Your task to perform on an android device: turn off airplane mode Image 0: 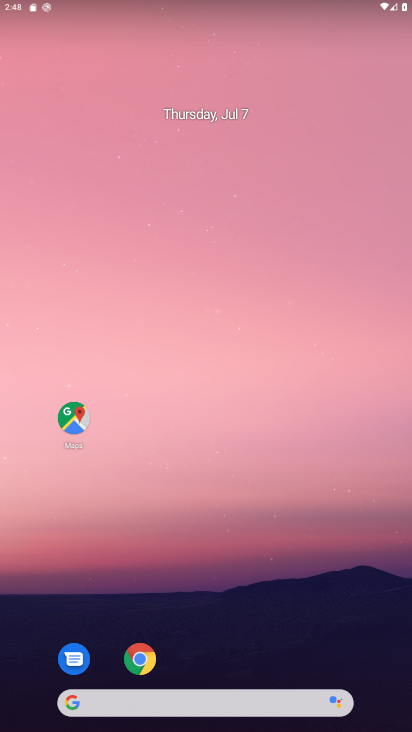
Step 0: drag from (206, 610) to (286, 62)
Your task to perform on an android device: turn off airplane mode Image 1: 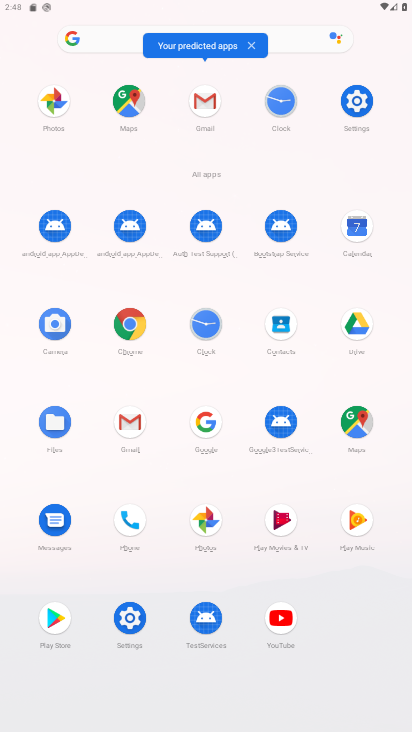
Step 1: click (115, 615)
Your task to perform on an android device: turn off airplane mode Image 2: 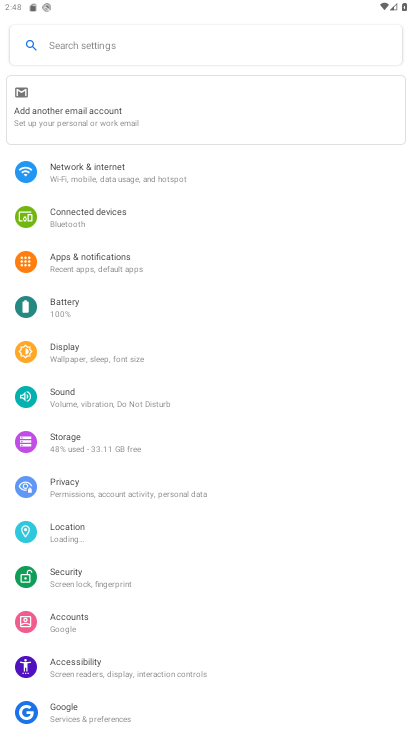
Step 2: click (133, 174)
Your task to perform on an android device: turn off airplane mode Image 3: 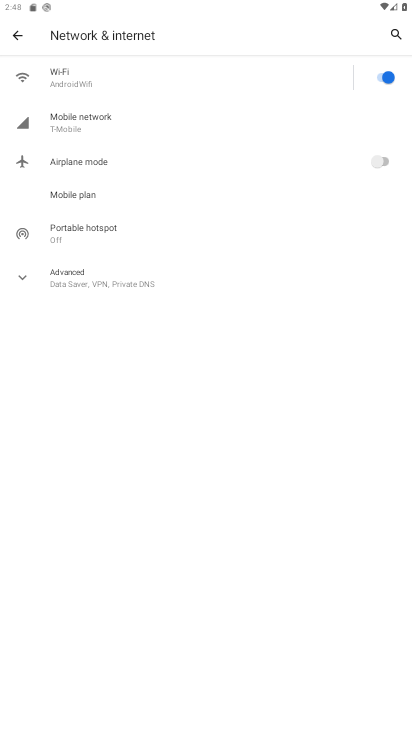
Step 3: task complete